Your task to perform on an android device: Open internet settings Image 0: 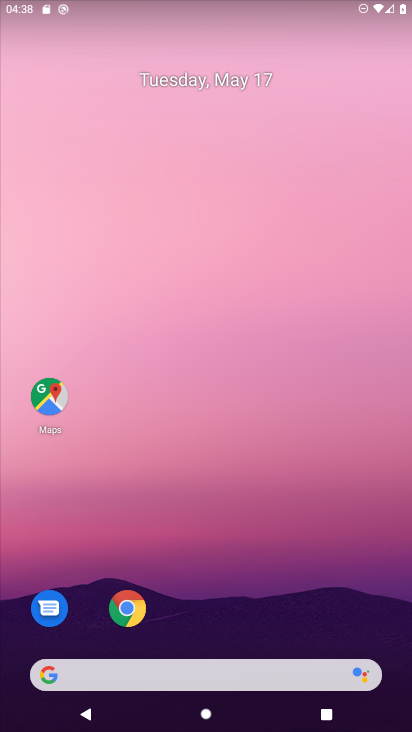
Step 0: drag from (199, 654) to (280, 214)
Your task to perform on an android device: Open internet settings Image 1: 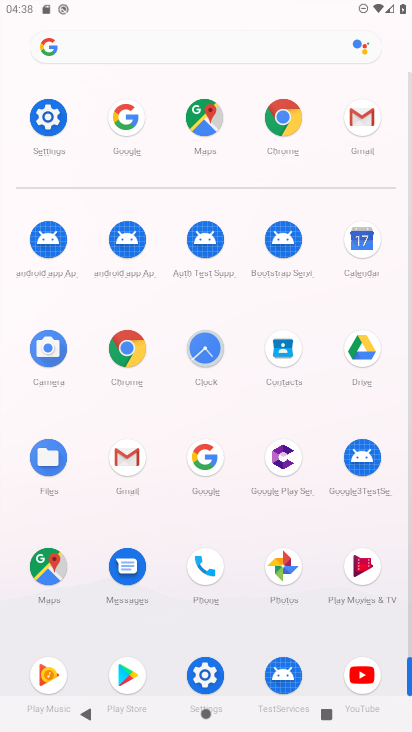
Step 1: click (48, 114)
Your task to perform on an android device: Open internet settings Image 2: 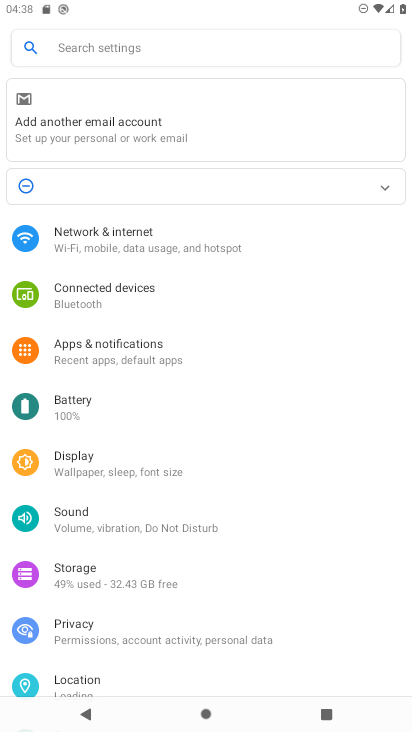
Step 2: click (95, 240)
Your task to perform on an android device: Open internet settings Image 3: 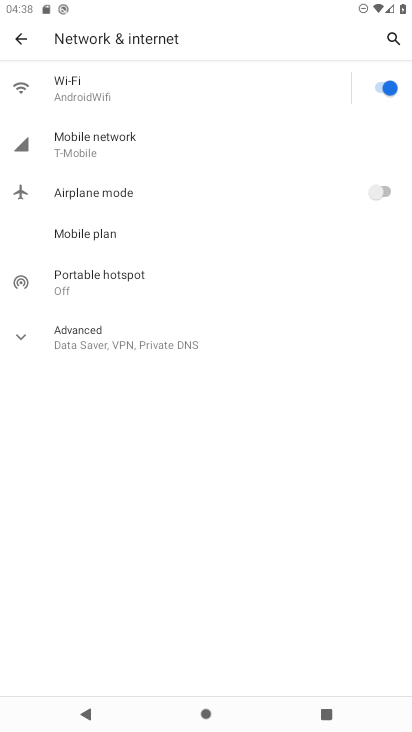
Step 3: click (80, 341)
Your task to perform on an android device: Open internet settings Image 4: 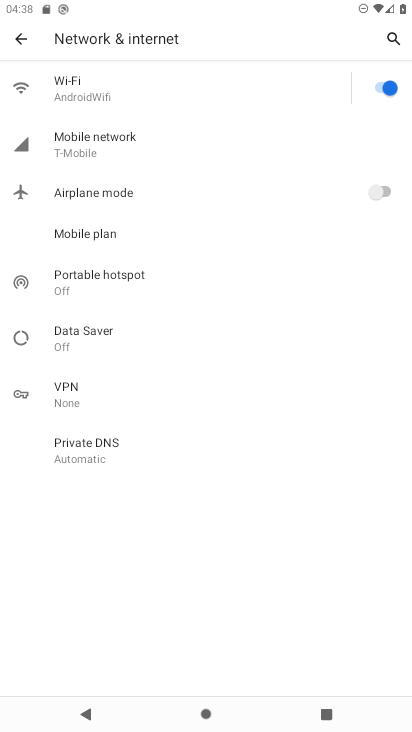
Step 4: task complete